Your task to perform on an android device: toggle pop-ups in chrome Image 0: 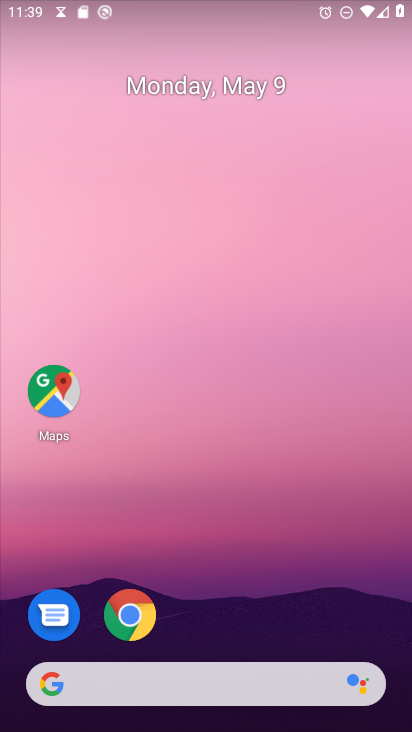
Step 0: click (139, 615)
Your task to perform on an android device: toggle pop-ups in chrome Image 1: 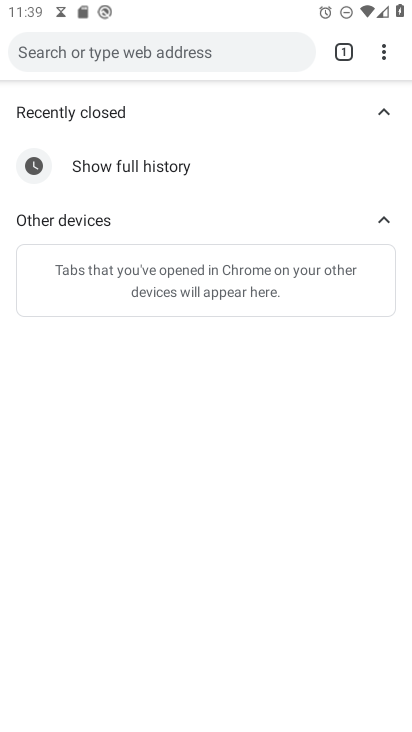
Step 1: click (382, 57)
Your task to perform on an android device: toggle pop-ups in chrome Image 2: 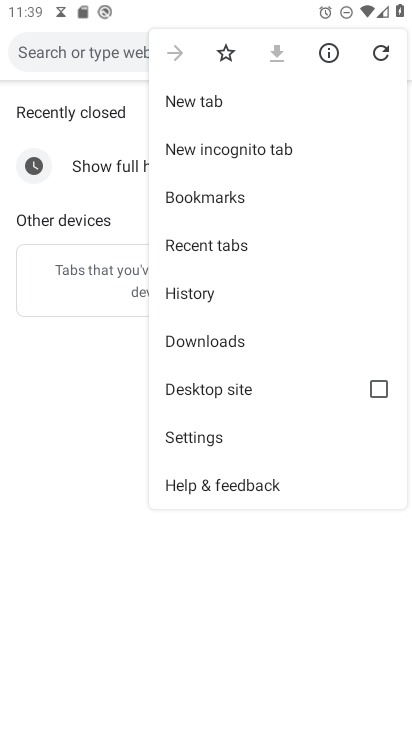
Step 2: click (205, 438)
Your task to perform on an android device: toggle pop-ups in chrome Image 3: 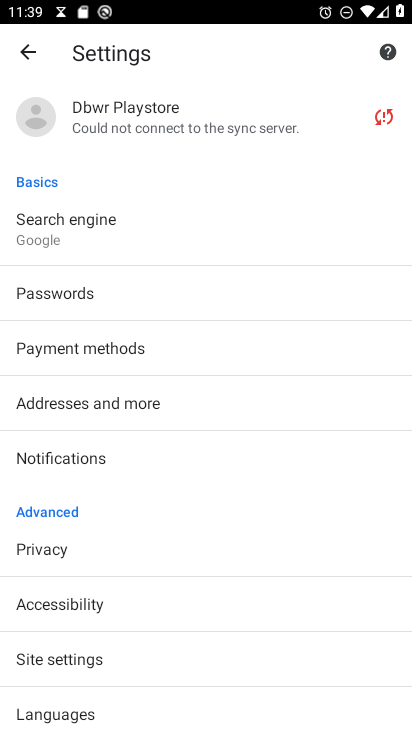
Step 3: drag from (142, 691) to (131, 327)
Your task to perform on an android device: toggle pop-ups in chrome Image 4: 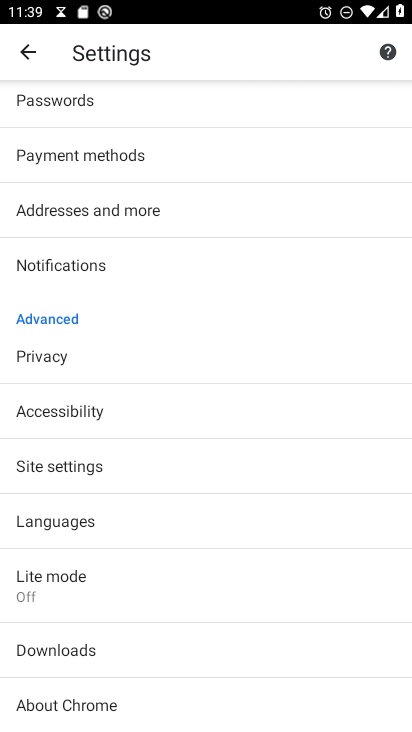
Step 4: click (76, 466)
Your task to perform on an android device: toggle pop-ups in chrome Image 5: 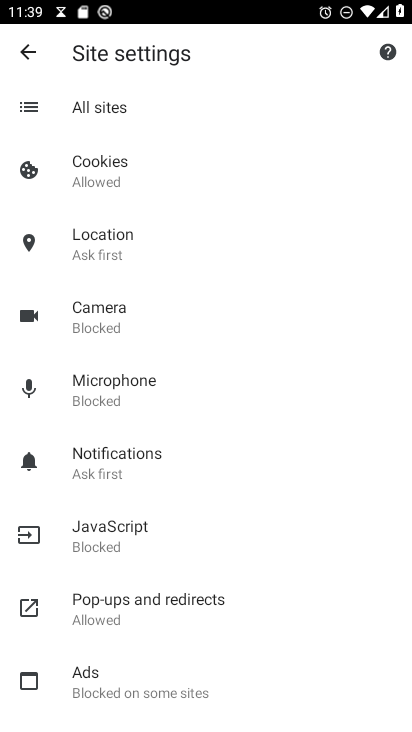
Step 5: click (117, 599)
Your task to perform on an android device: toggle pop-ups in chrome Image 6: 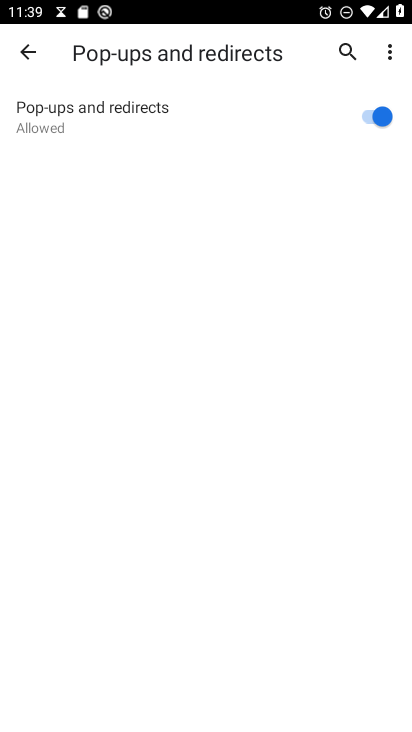
Step 6: click (366, 118)
Your task to perform on an android device: toggle pop-ups in chrome Image 7: 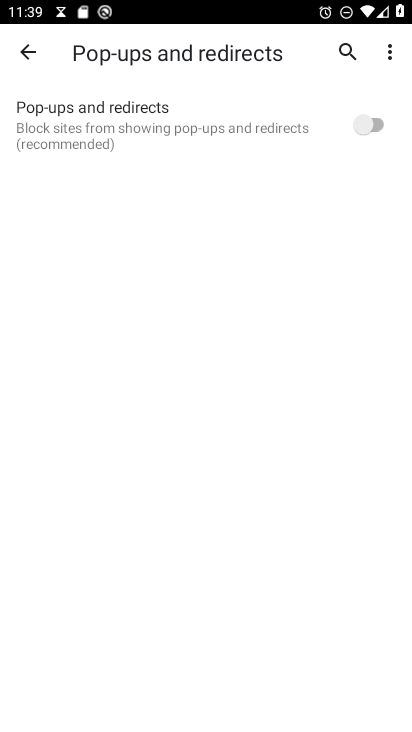
Step 7: task complete